Your task to perform on an android device: Open Reddit.com Image 0: 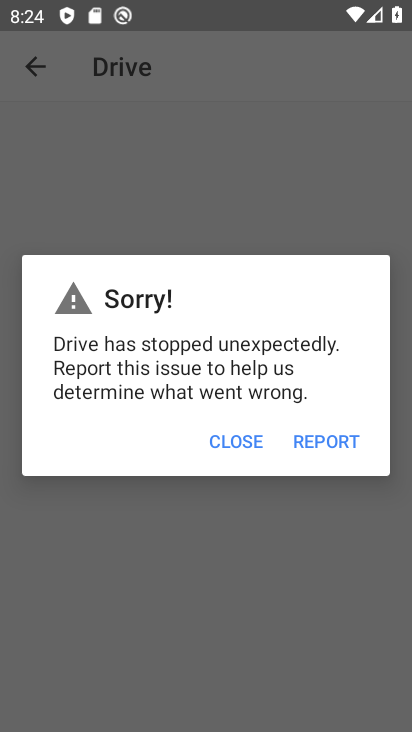
Step 0: press home button
Your task to perform on an android device: Open Reddit.com Image 1: 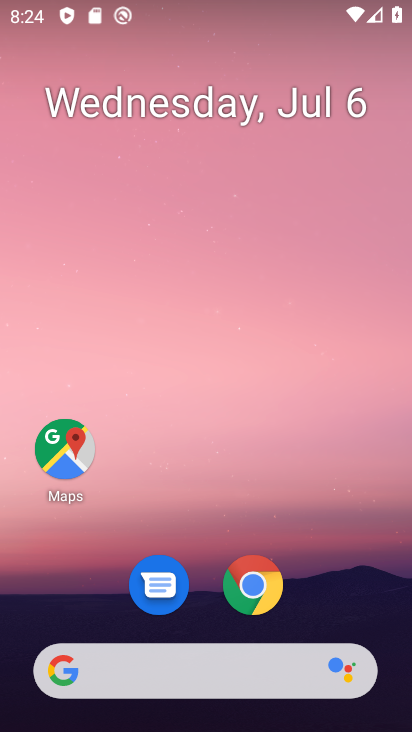
Step 1: click (255, 582)
Your task to perform on an android device: Open Reddit.com Image 2: 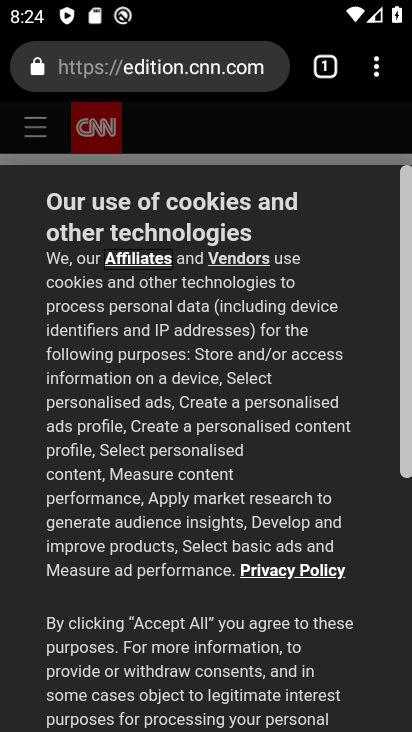
Step 2: click (376, 67)
Your task to perform on an android device: Open Reddit.com Image 3: 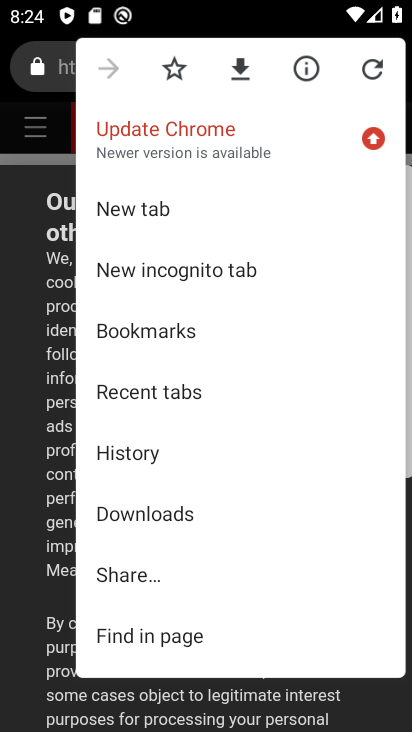
Step 3: click (185, 206)
Your task to perform on an android device: Open Reddit.com Image 4: 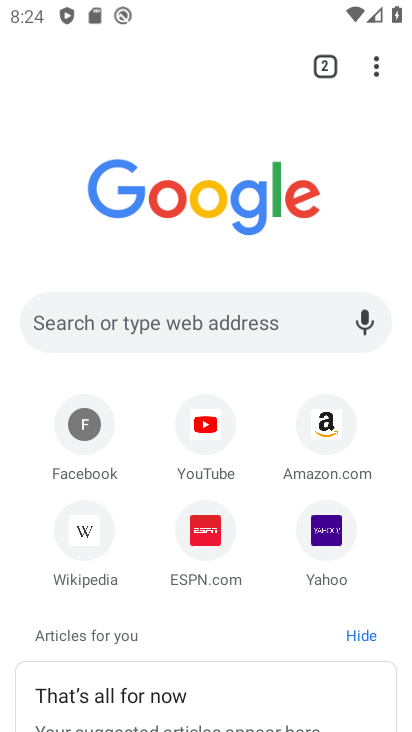
Step 4: click (147, 312)
Your task to perform on an android device: Open Reddit.com Image 5: 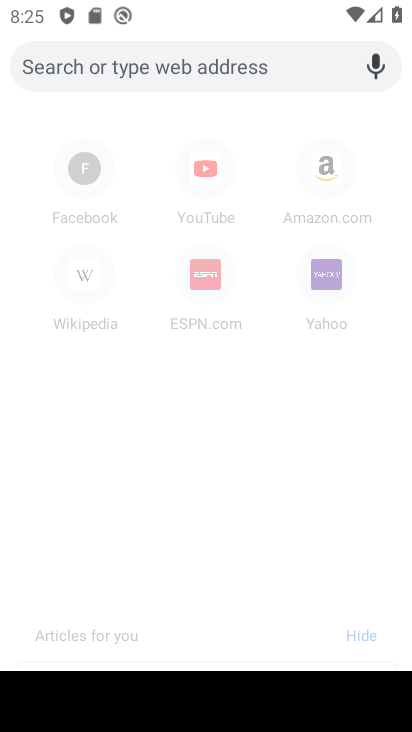
Step 5: type "reddit.com"
Your task to perform on an android device: Open Reddit.com Image 6: 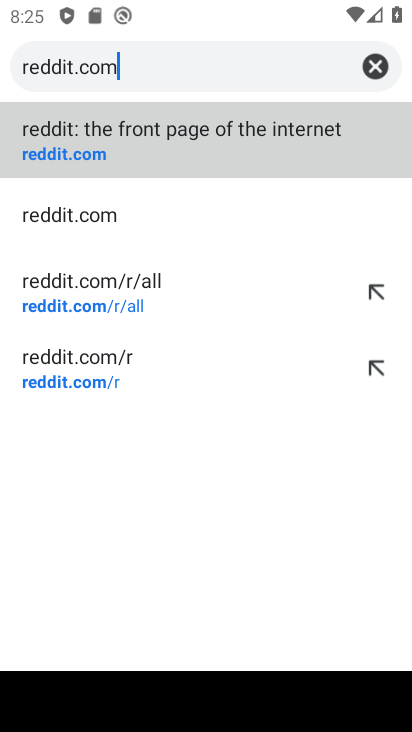
Step 6: click (78, 150)
Your task to perform on an android device: Open Reddit.com Image 7: 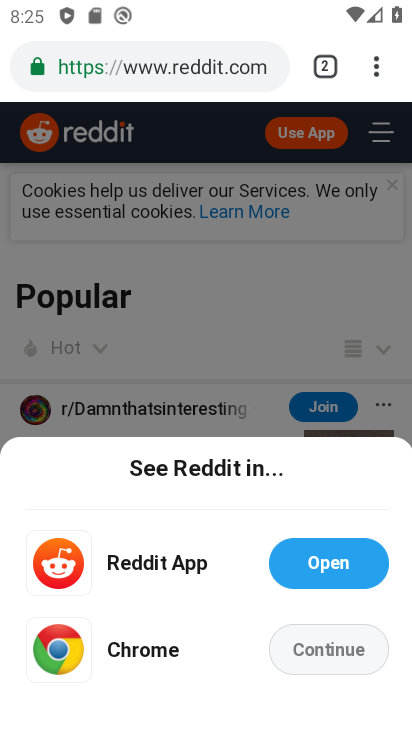
Step 7: task complete